Your task to perform on an android device: open device folders in google photos Image 0: 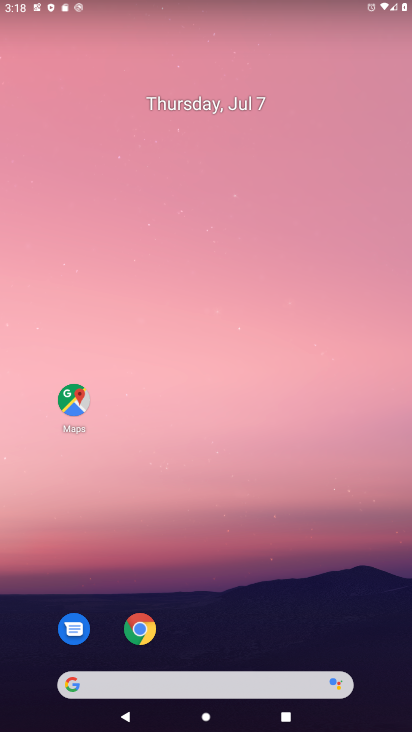
Step 0: drag from (185, 658) to (192, 128)
Your task to perform on an android device: open device folders in google photos Image 1: 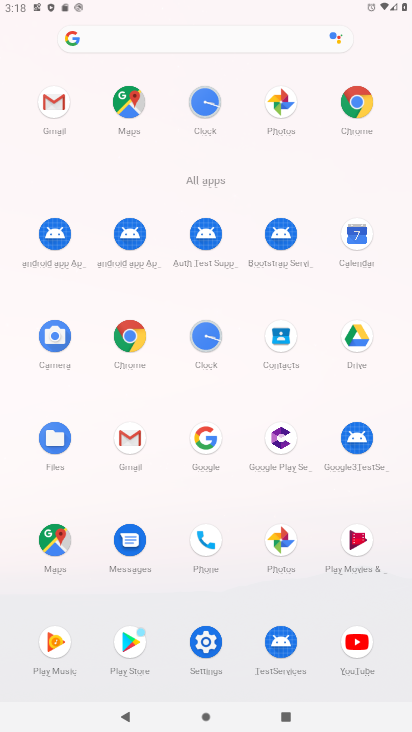
Step 1: click (274, 539)
Your task to perform on an android device: open device folders in google photos Image 2: 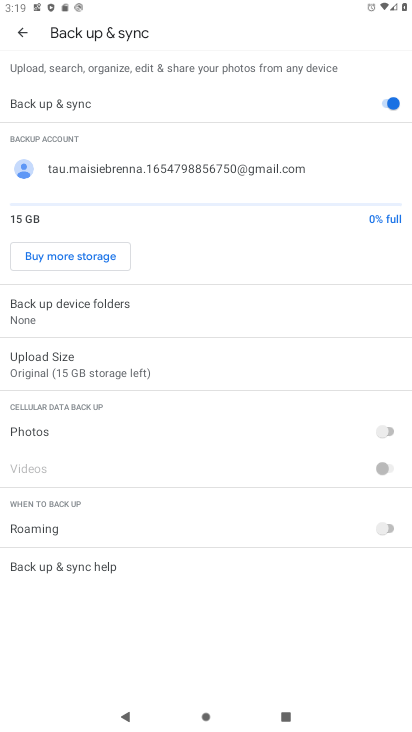
Step 2: click (23, 33)
Your task to perform on an android device: open device folders in google photos Image 3: 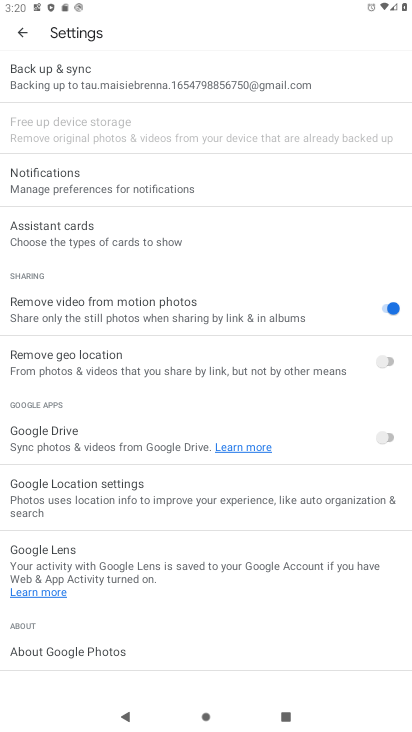
Step 3: click (21, 36)
Your task to perform on an android device: open device folders in google photos Image 4: 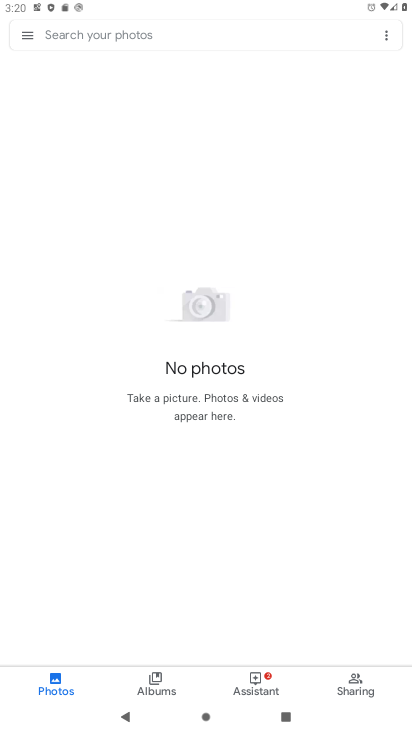
Step 4: click (22, 36)
Your task to perform on an android device: open device folders in google photos Image 5: 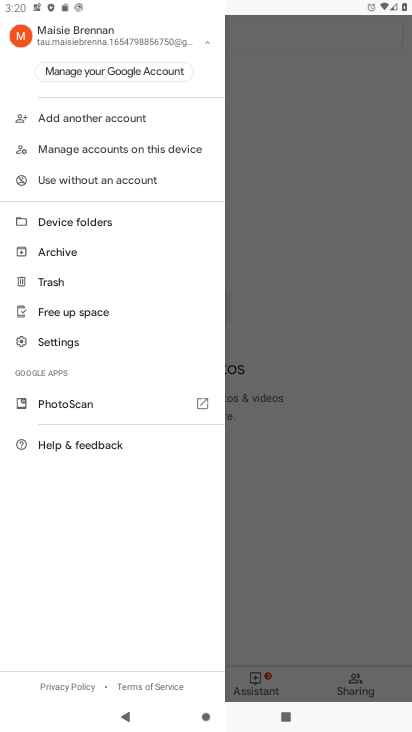
Step 5: click (56, 225)
Your task to perform on an android device: open device folders in google photos Image 6: 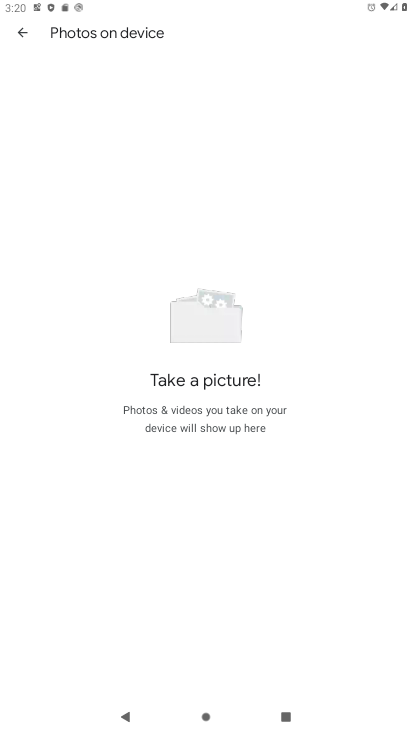
Step 6: task complete